Your task to perform on an android device: Do I have any events tomorrow? Image 0: 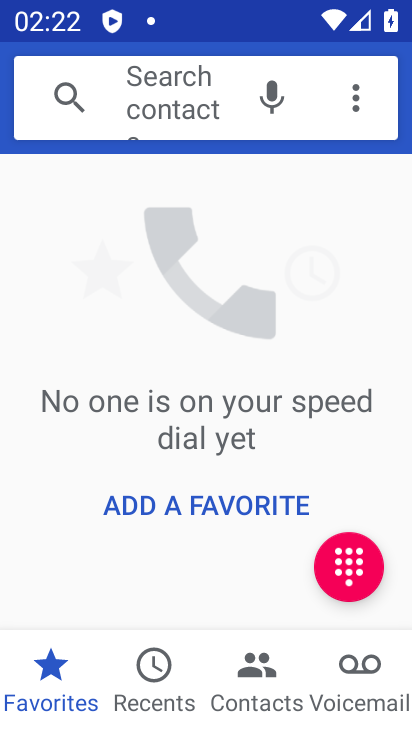
Step 0: press home button
Your task to perform on an android device: Do I have any events tomorrow? Image 1: 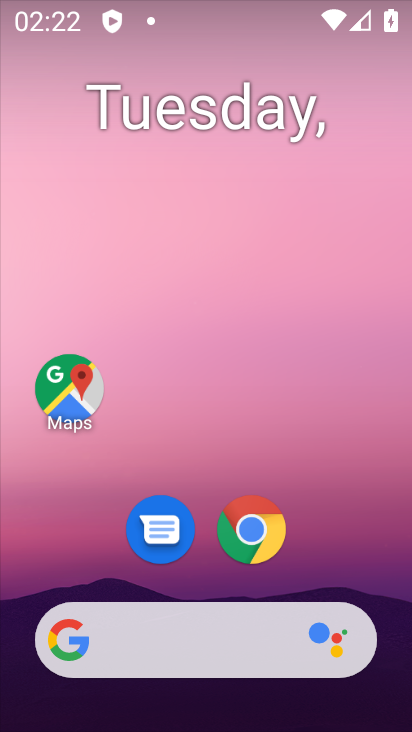
Step 1: drag from (227, 582) to (271, 9)
Your task to perform on an android device: Do I have any events tomorrow? Image 2: 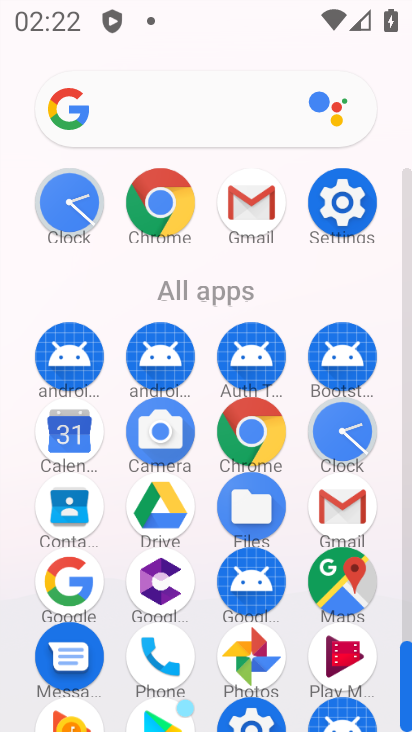
Step 2: click (64, 430)
Your task to perform on an android device: Do I have any events tomorrow? Image 3: 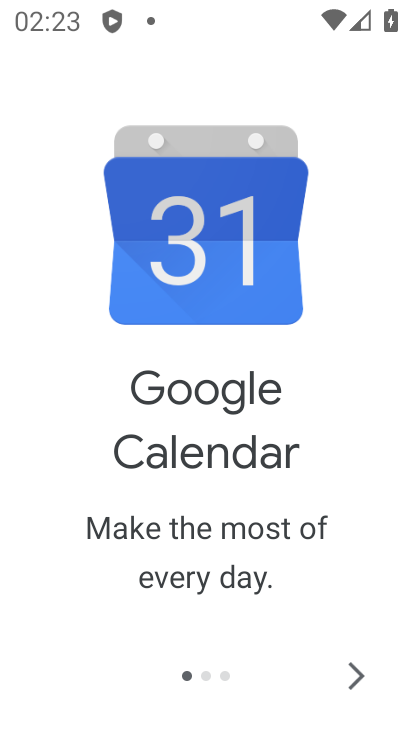
Step 3: click (360, 666)
Your task to perform on an android device: Do I have any events tomorrow? Image 4: 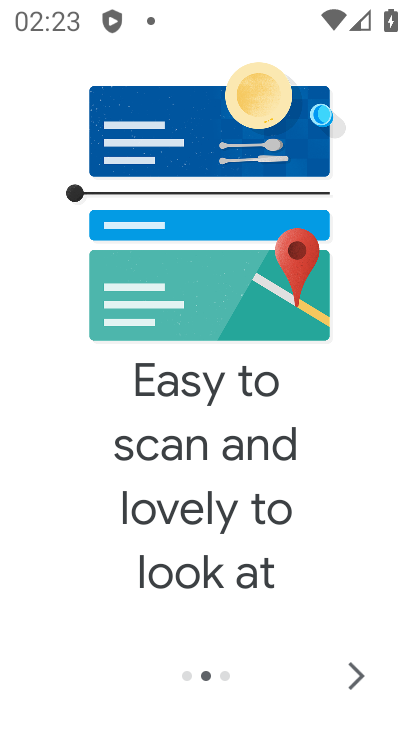
Step 4: click (360, 666)
Your task to perform on an android device: Do I have any events tomorrow? Image 5: 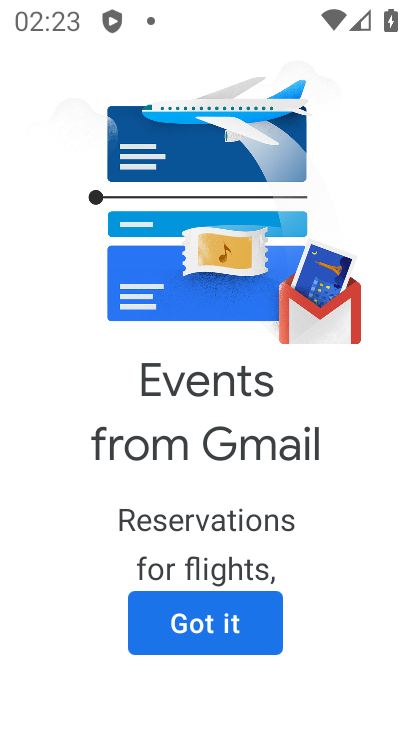
Step 5: click (204, 635)
Your task to perform on an android device: Do I have any events tomorrow? Image 6: 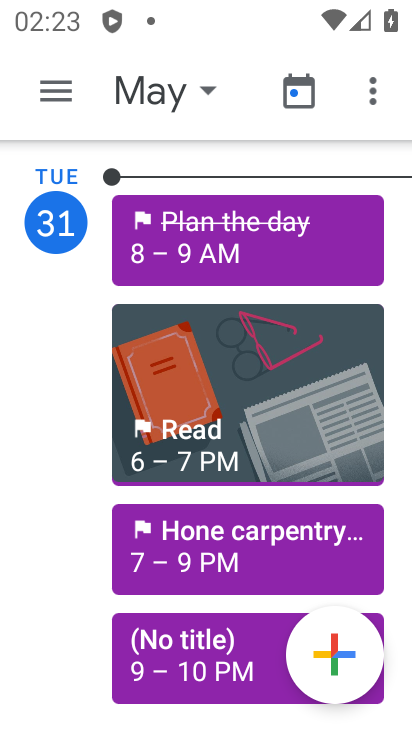
Step 6: click (183, 89)
Your task to perform on an android device: Do I have any events tomorrow? Image 7: 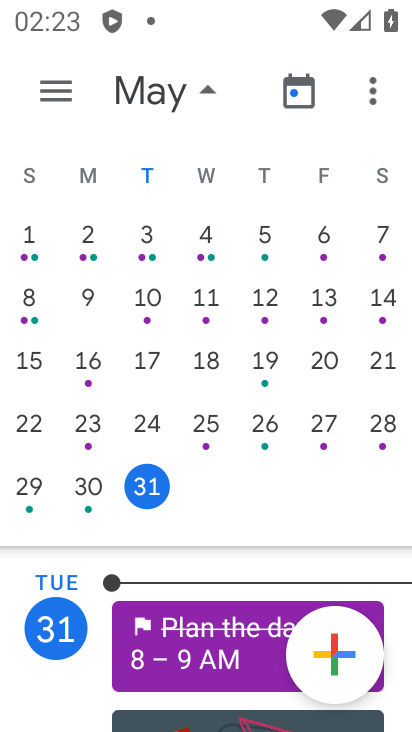
Step 7: drag from (312, 494) to (55, 540)
Your task to perform on an android device: Do I have any events tomorrow? Image 8: 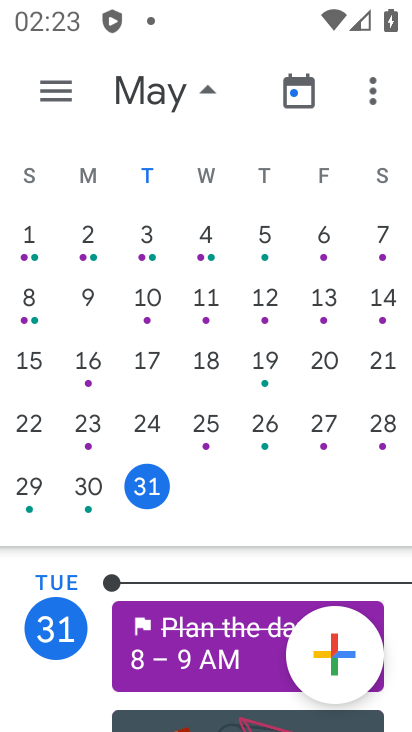
Step 8: drag from (295, 275) to (0, 417)
Your task to perform on an android device: Do I have any events tomorrow? Image 9: 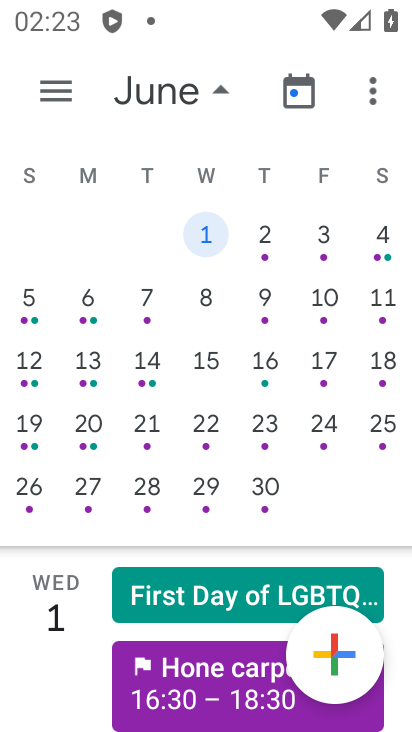
Step 9: click (222, 242)
Your task to perform on an android device: Do I have any events tomorrow? Image 10: 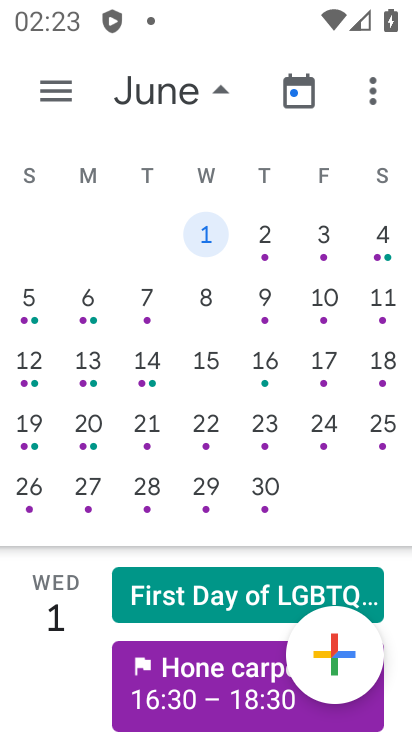
Step 10: task complete